Your task to perform on an android device: install app "Google Keep" Image 0: 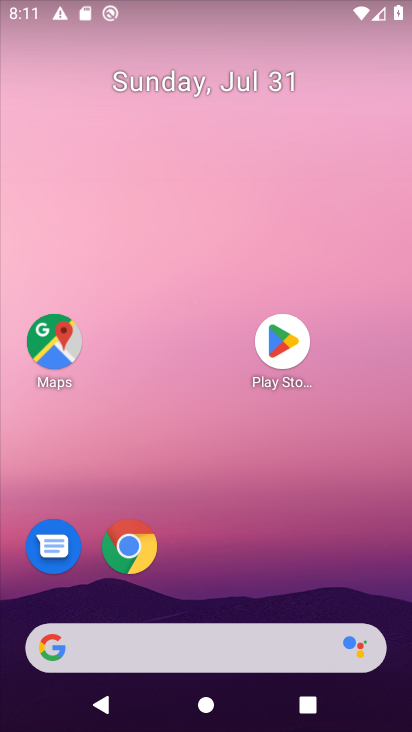
Step 0: click (276, 345)
Your task to perform on an android device: install app "Google Keep" Image 1: 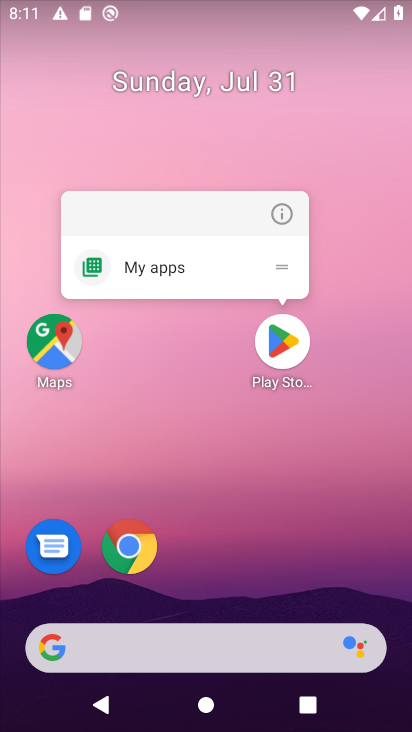
Step 1: click (287, 335)
Your task to perform on an android device: install app "Google Keep" Image 2: 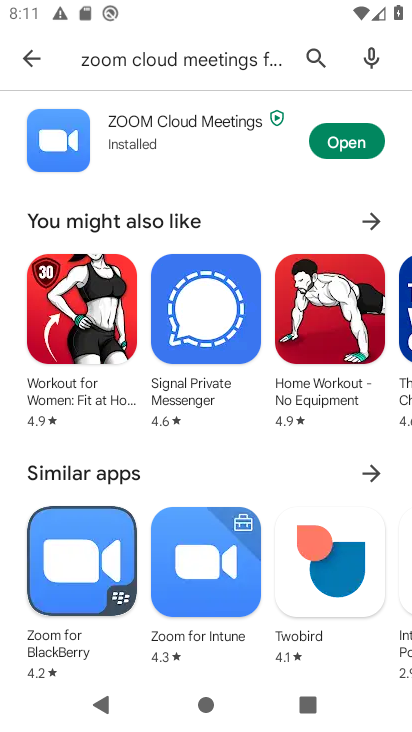
Step 2: click (309, 57)
Your task to perform on an android device: install app "Google Keep" Image 3: 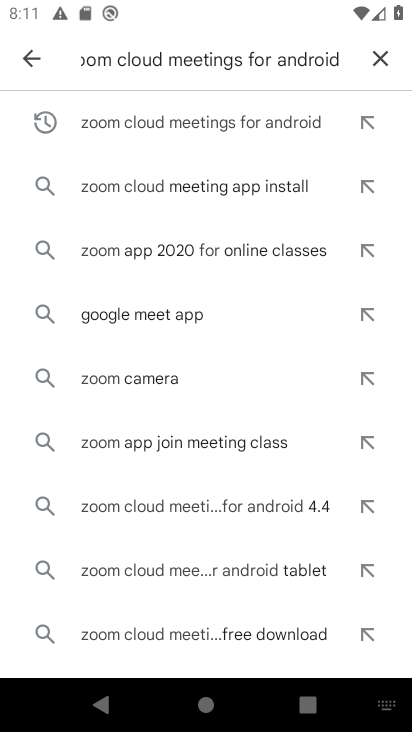
Step 3: click (385, 60)
Your task to perform on an android device: install app "Google Keep" Image 4: 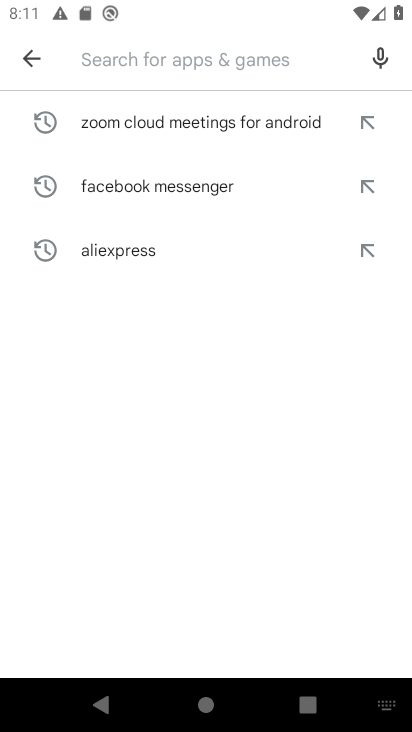
Step 4: type "Google Keep"
Your task to perform on an android device: install app "Google Keep" Image 5: 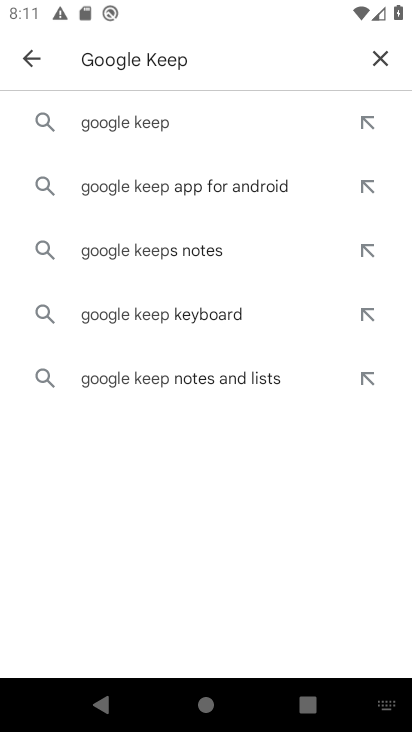
Step 5: click (125, 122)
Your task to perform on an android device: install app "Google Keep" Image 6: 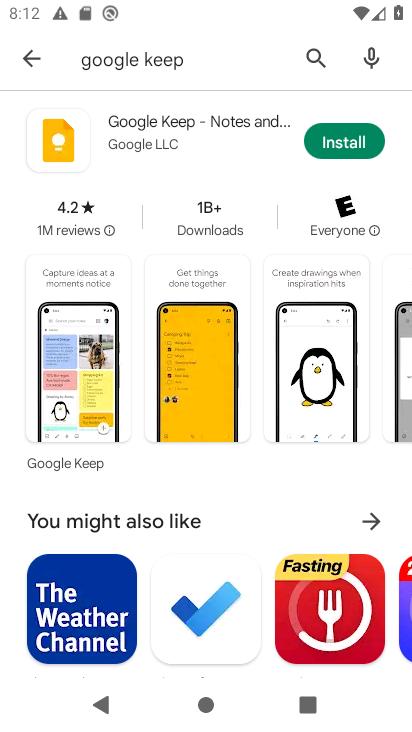
Step 6: click (355, 144)
Your task to perform on an android device: install app "Google Keep" Image 7: 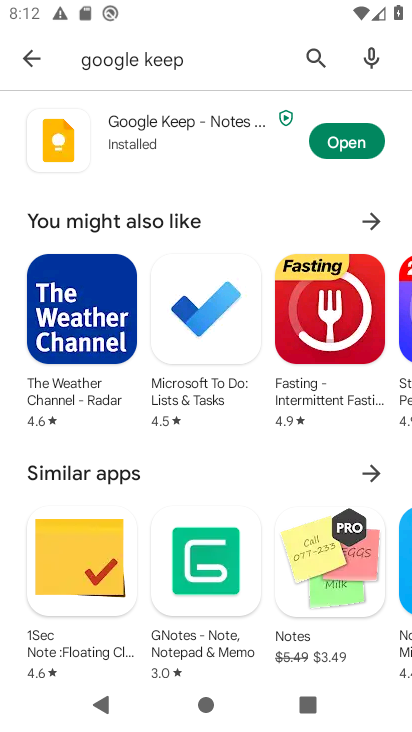
Step 7: task complete